Your task to perform on an android device: Go to Android settings Image 0: 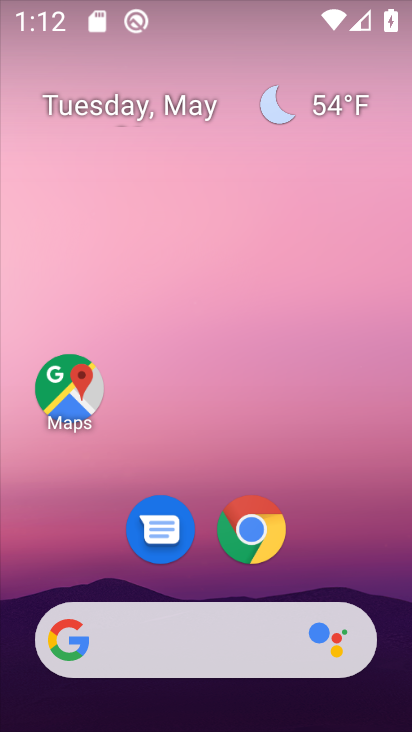
Step 0: drag from (285, 540) to (263, 202)
Your task to perform on an android device: Go to Android settings Image 1: 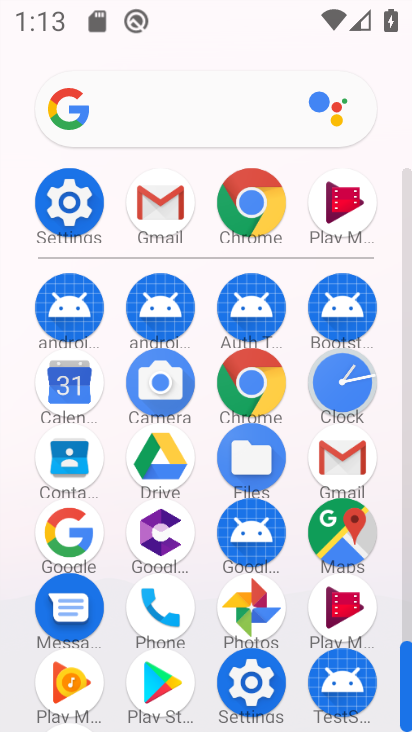
Step 1: click (89, 210)
Your task to perform on an android device: Go to Android settings Image 2: 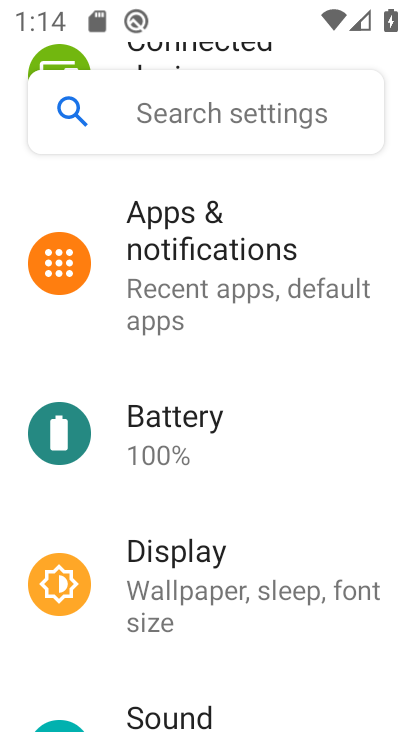
Step 2: task complete